Your task to perform on an android device: Open Google Maps and go to "Timeline" Image 0: 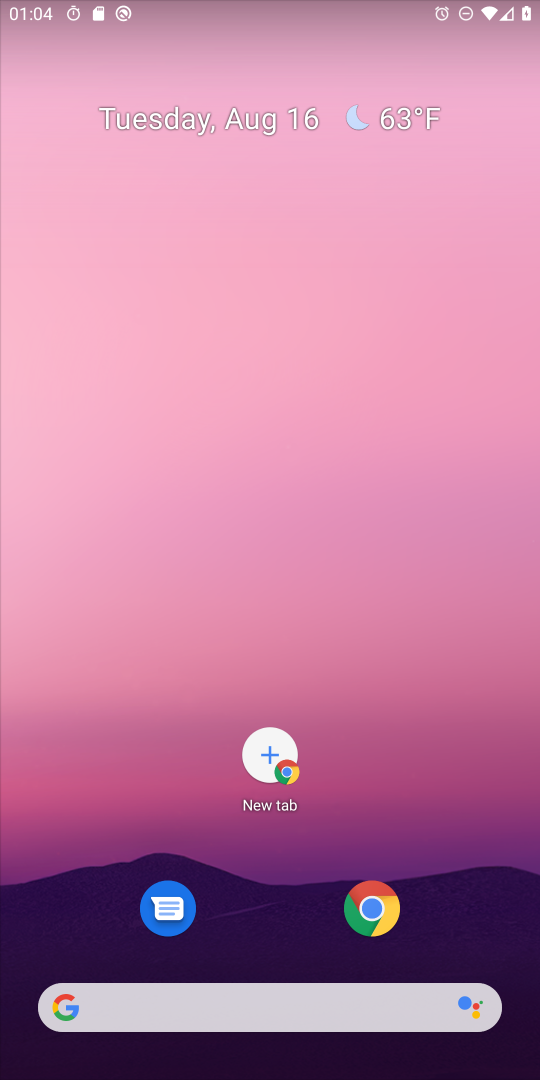
Step 0: drag from (240, 938) to (174, 18)
Your task to perform on an android device: Open Google Maps and go to "Timeline" Image 1: 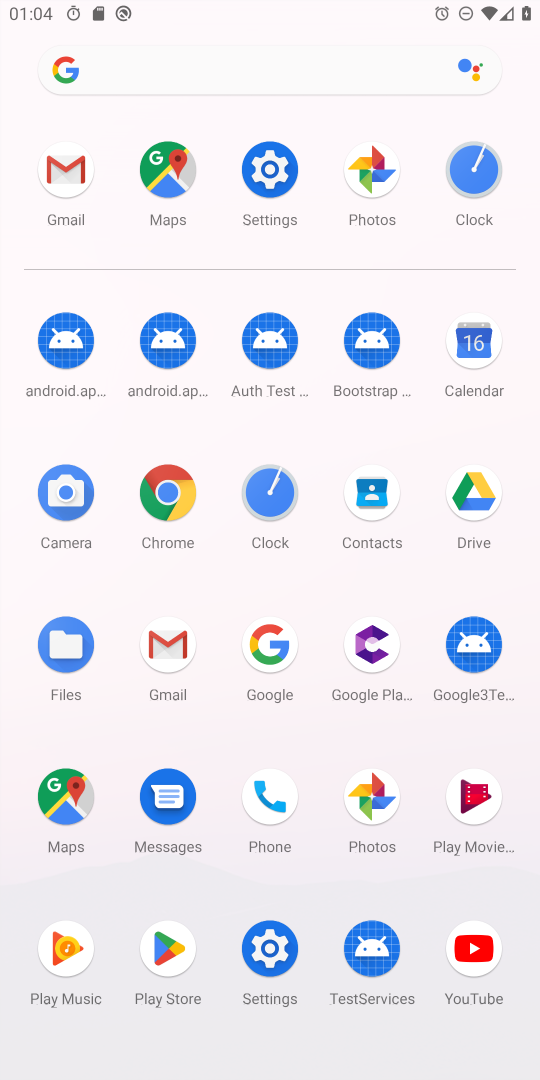
Step 1: click (171, 179)
Your task to perform on an android device: Open Google Maps and go to "Timeline" Image 2: 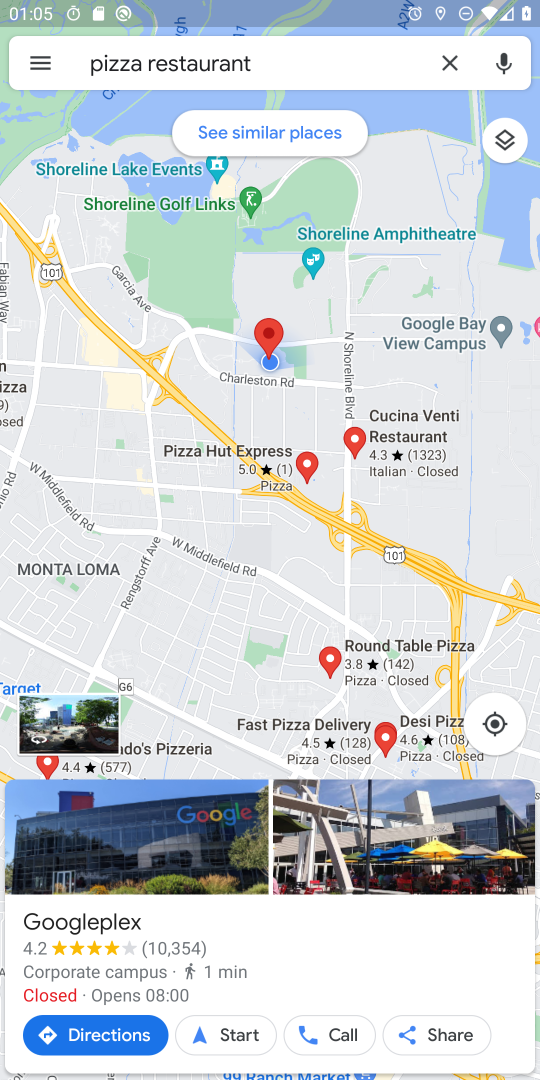
Step 2: click (46, 66)
Your task to perform on an android device: Open Google Maps and go to "Timeline" Image 3: 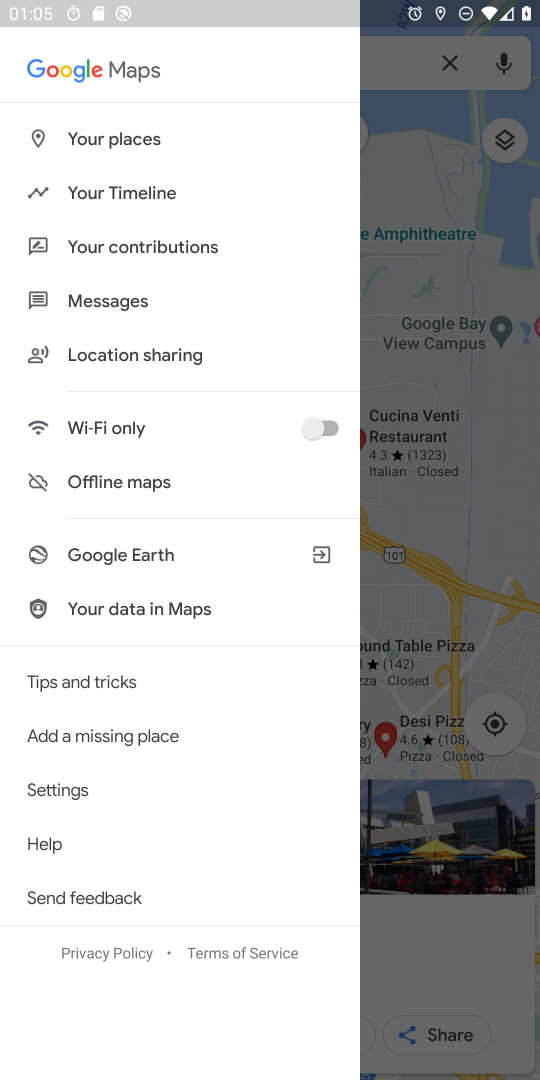
Step 3: click (131, 179)
Your task to perform on an android device: Open Google Maps and go to "Timeline" Image 4: 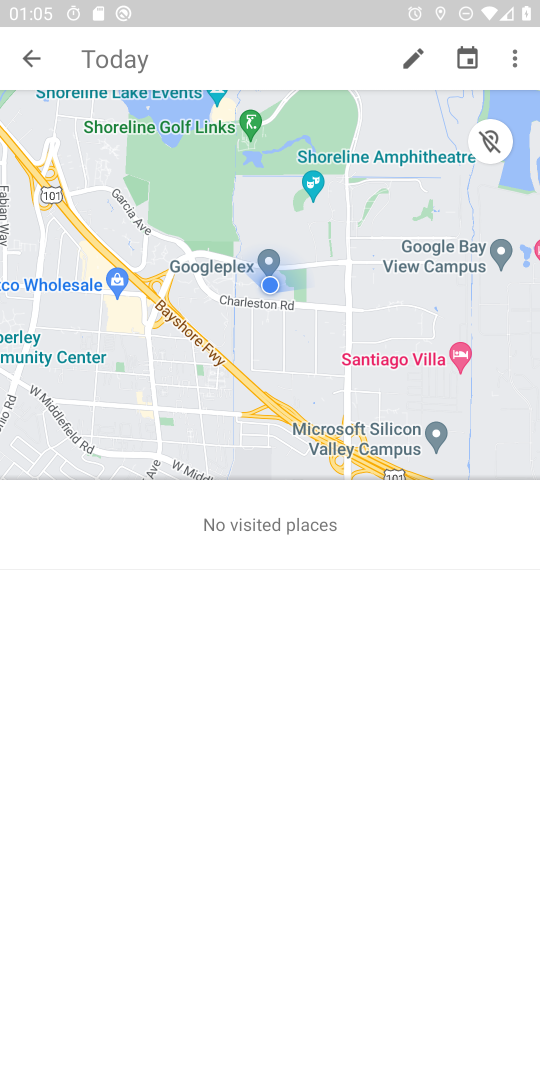
Step 4: task complete